Your task to perform on an android device: check data usage Image 0: 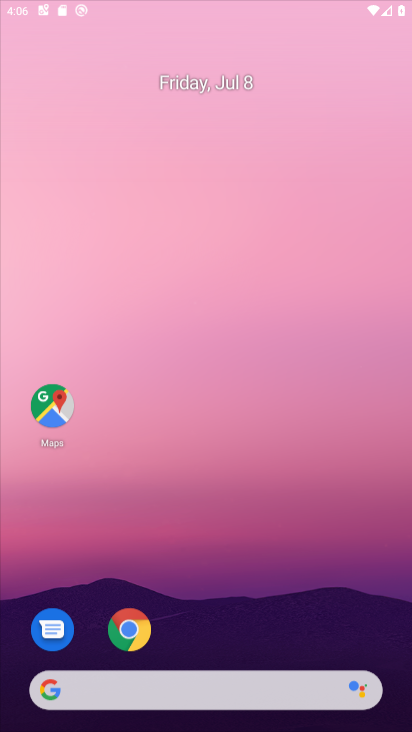
Step 0: drag from (279, 309) to (269, 54)
Your task to perform on an android device: check data usage Image 1: 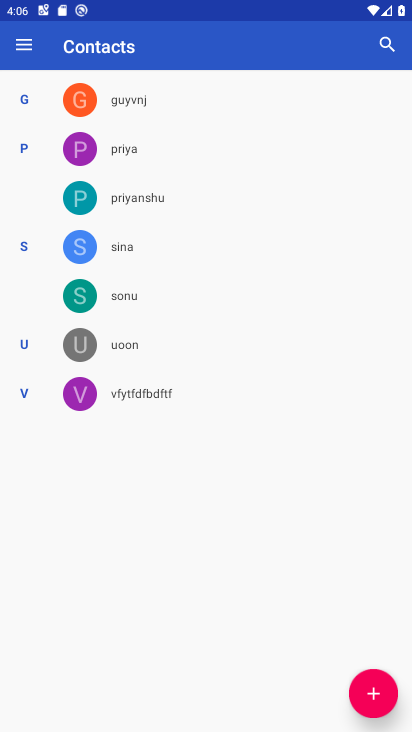
Step 1: press home button
Your task to perform on an android device: check data usage Image 2: 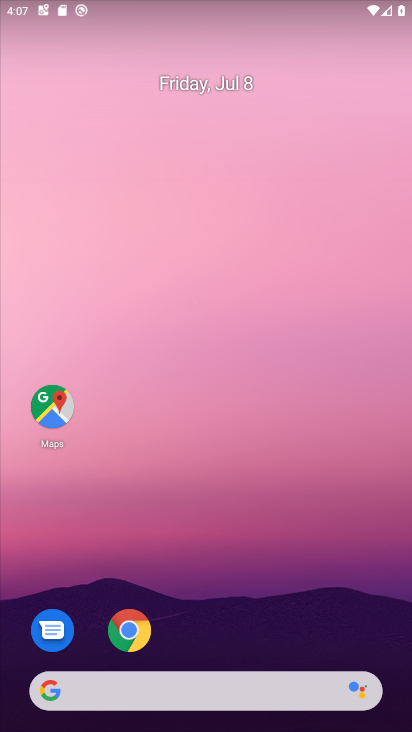
Step 2: drag from (328, 570) to (296, 0)
Your task to perform on an android device: check data usage Image 3: 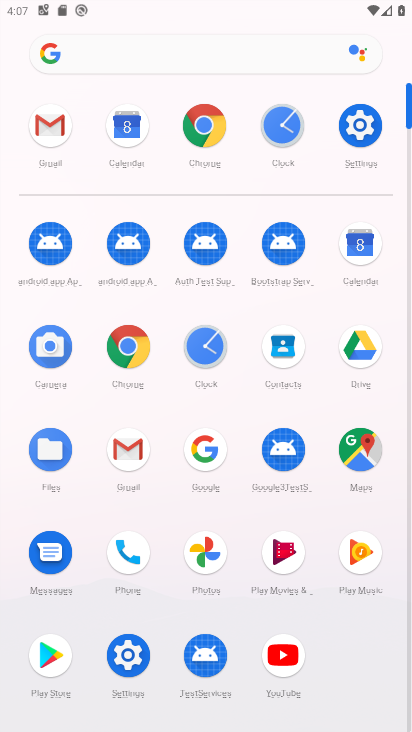
Step 3: click (357, 122)
Your task to perform on an android device: check data usage Image 4: 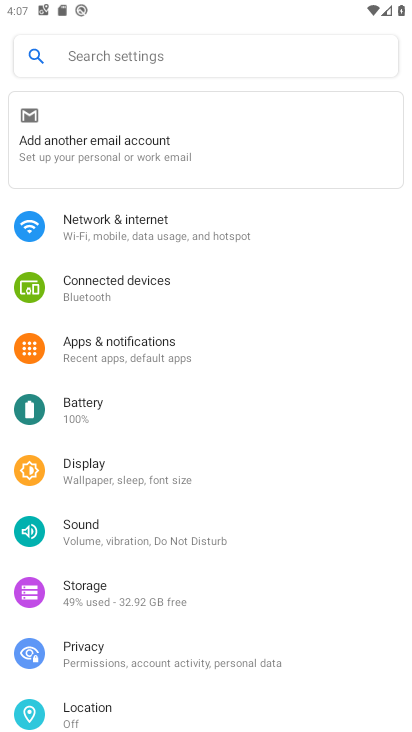
Step 4: click (157, 236)
Your task to perform on an android device: check data usage Image 5: 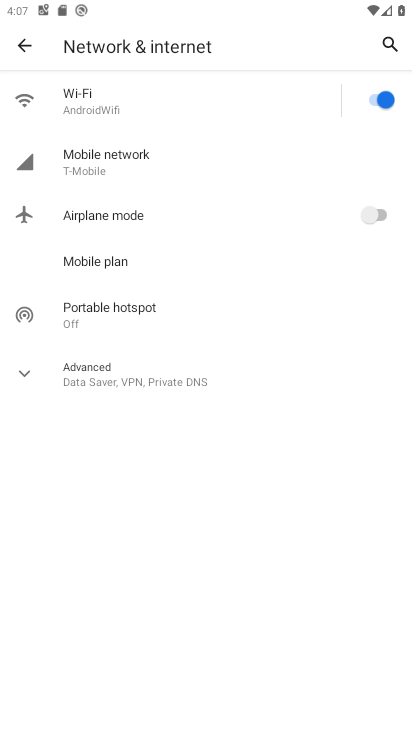
Step 5: click (146, 177)
Your task to perform on an android device: check data usage Image 6: 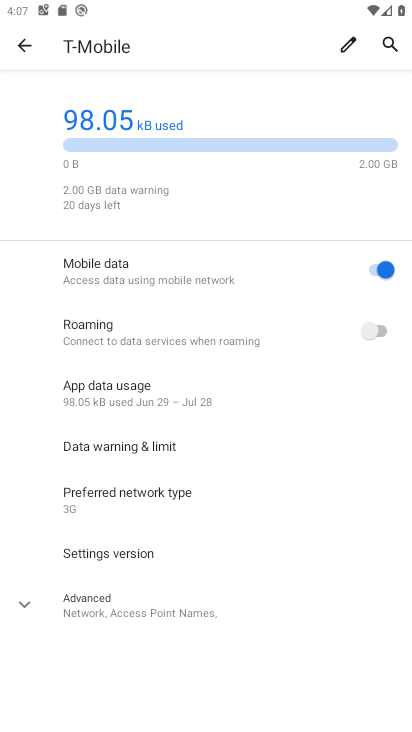
Step 6: task complete